Your task to perform on an android device: What's the weather today? Image 0: 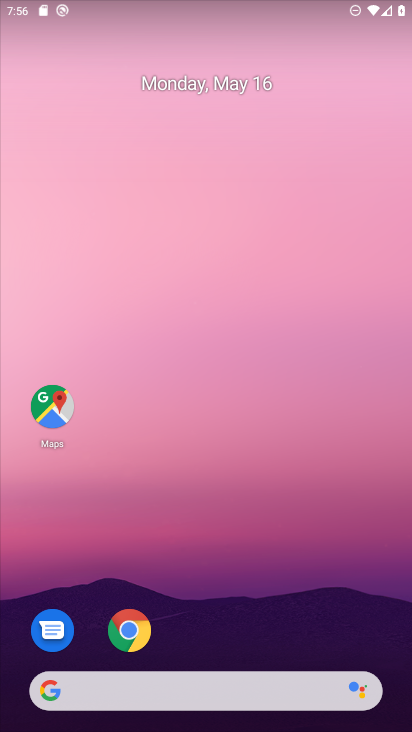
Step 0: drag from (271, 546) to (279, 59)
Your task to perform on an android device: What's the weather today? Image 1: 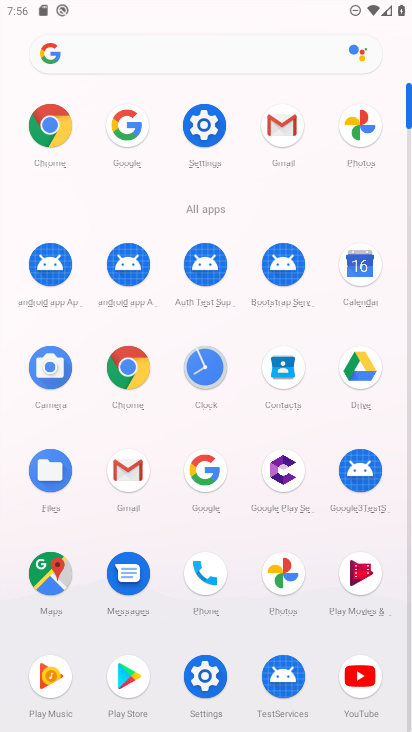
Step 1: click (127, 121)
Your task to perform on an android device: What's the weather today? Image 2: 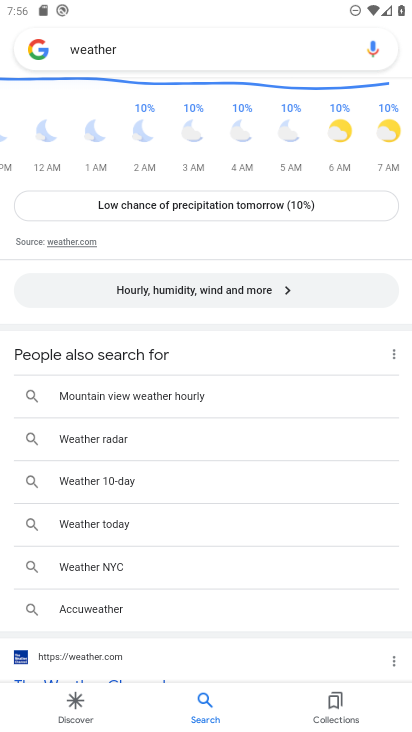
Step 2: drag from (272, 205) to (239, 585)
Your task to perform on an android device: What's the weather today? Image 3: 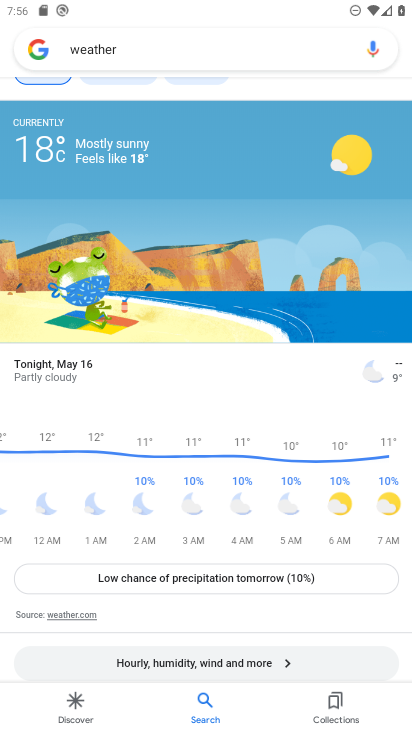
Step 3: drag from (59, 169) to (99, 531)
Your task to perform on an android device: What's the weather today? Image 4: 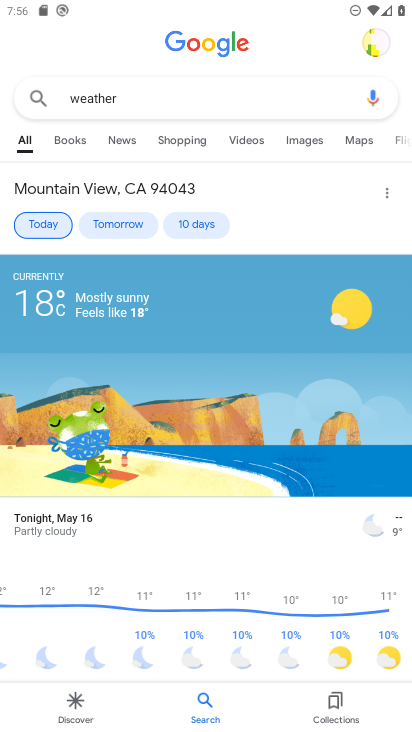
Step 4: click (30, 220)
Your task to perform on an android device: What's the weather today? Image 5: 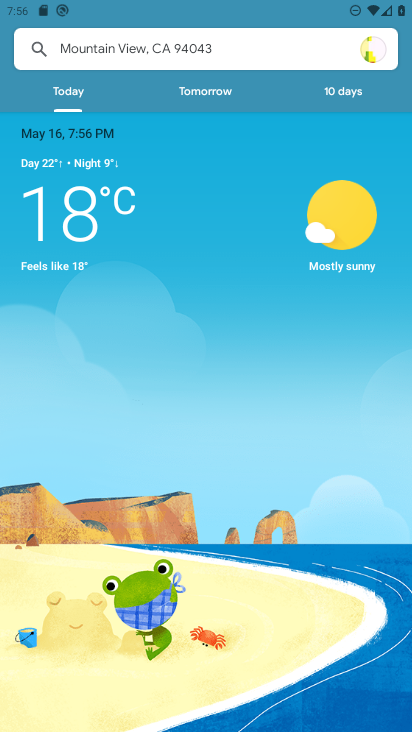
Step 5: task complete